Your task to perform on an android device: What's the news in Ecuador? Image 0: 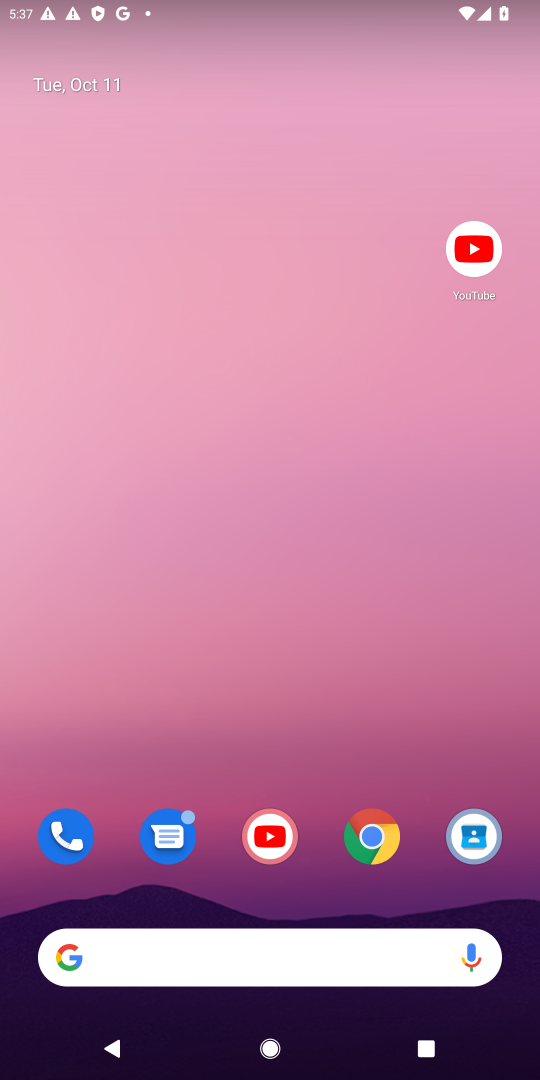
Step 0: click (373, 829)
Your task to perform on an android device: What's the news in Ecuador? Image 1: 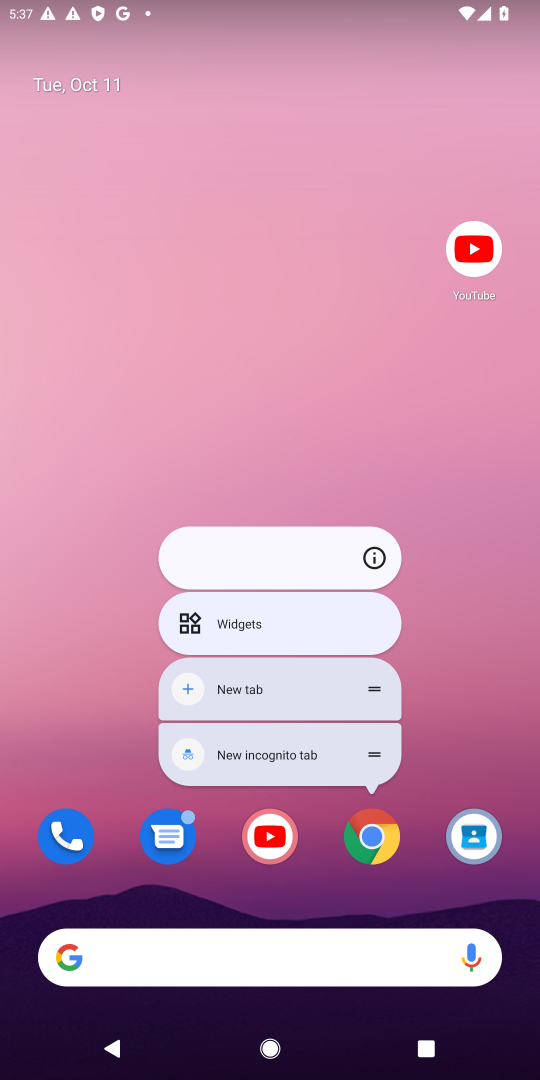
Step 1: click (359, 844)
Your task to perform on an android device: What's the news in Ecuador? Image 2: 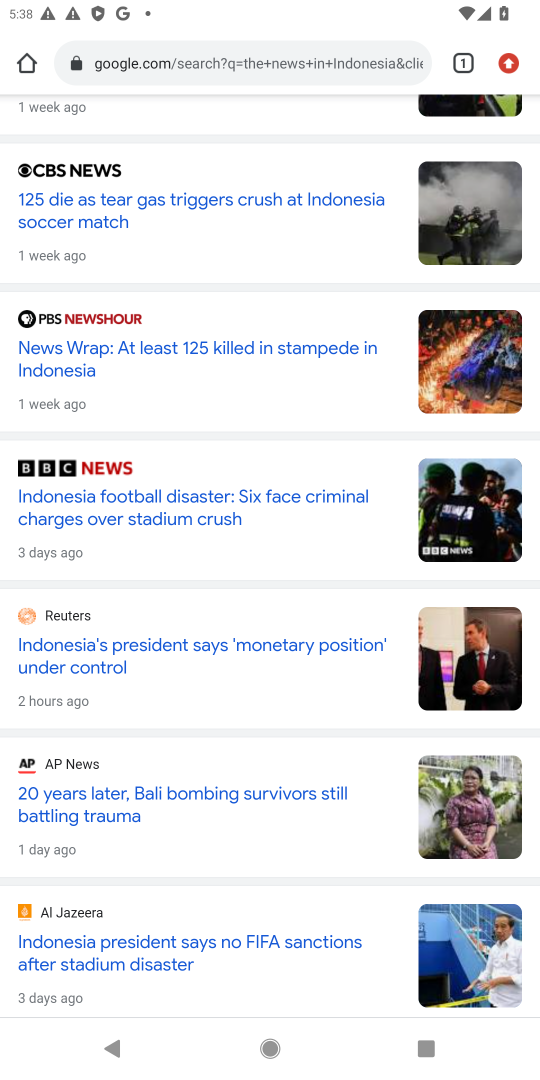
Step 2: click (337, 55)
Your task to perform on an android device: What's the news in Ecuador? Image 3: 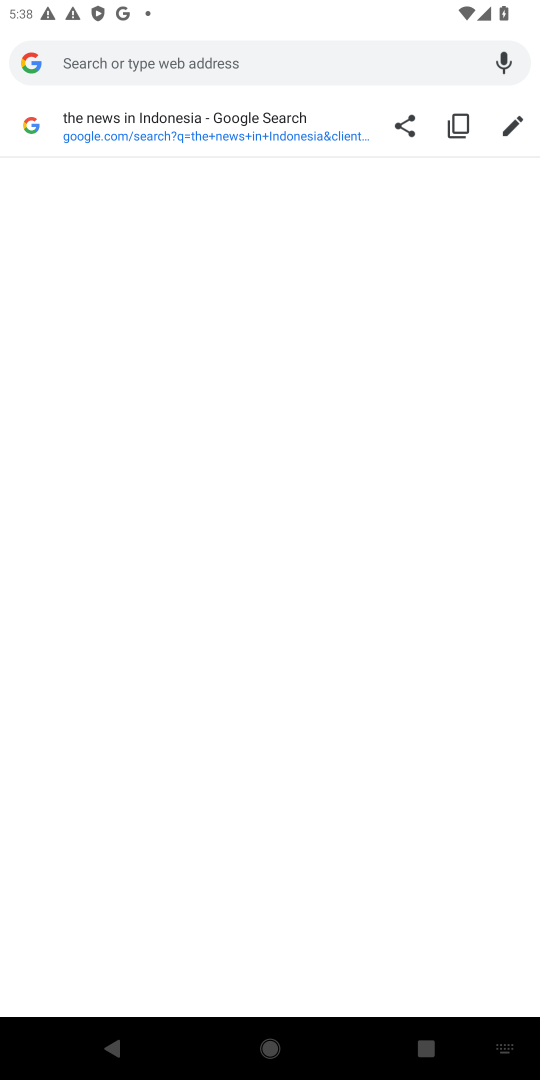
Step 3: type "news in Ecuador"
Your task to perform on an android device: What's the news in Ecuador? Image 4: 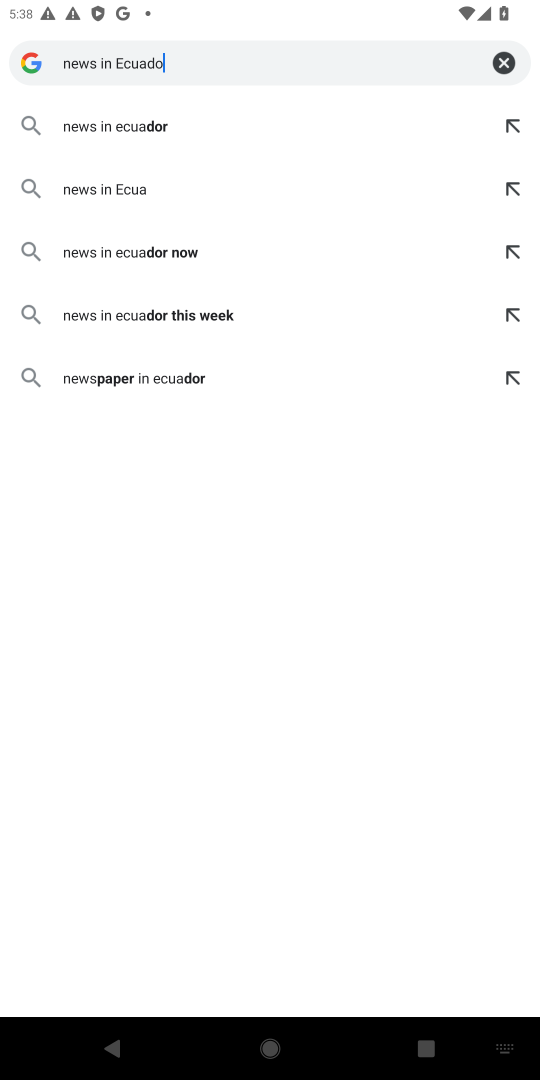
Step 4: press enter
Your task to perform on an android device: What's the news in Ecuador? Image 5: 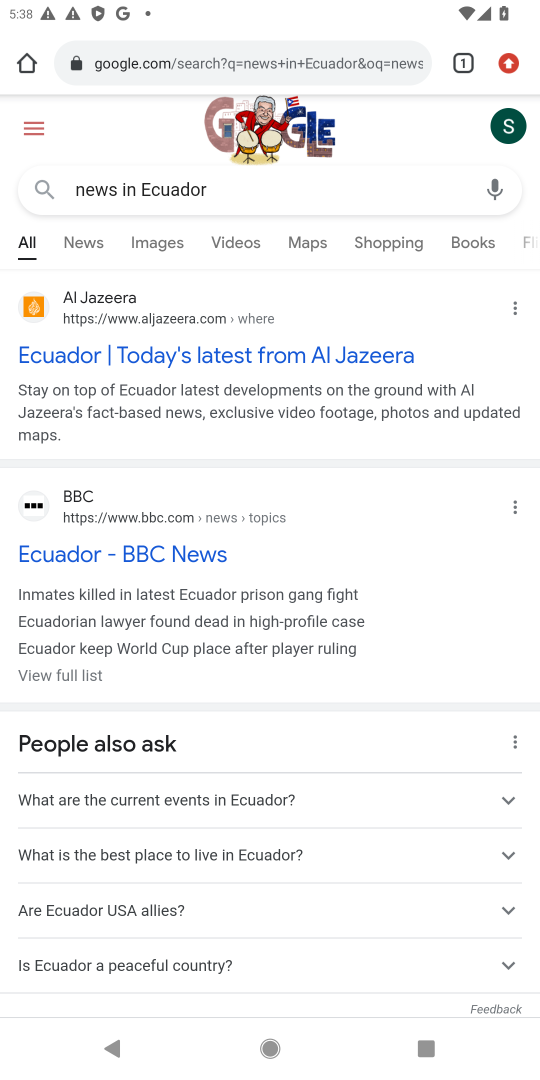
Step 5: click (97, 239)
Your task to perform on an android device: What's the news in Ecuador? Image 6: 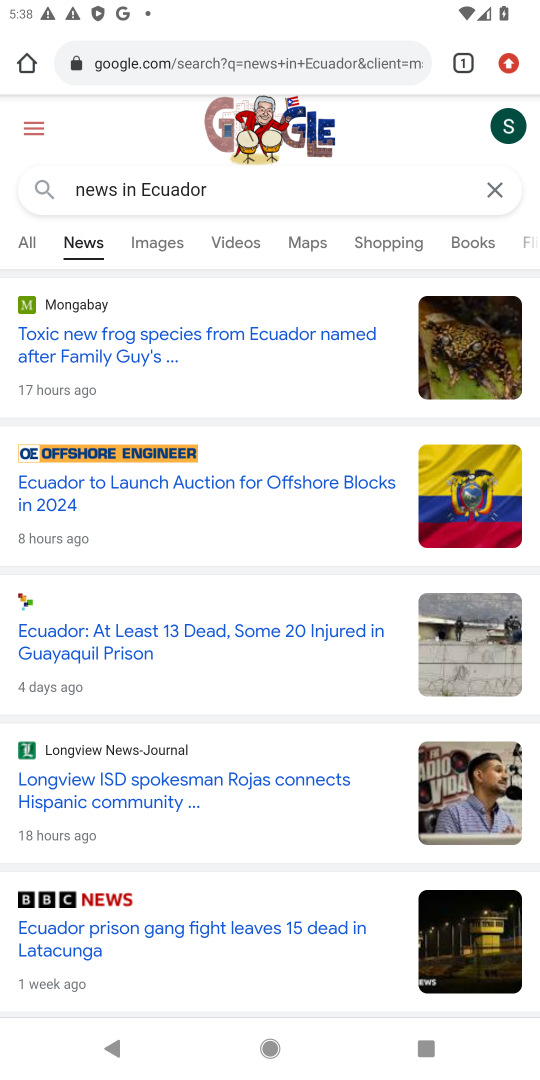
Step 6: task complete